Your task to perform on an android device: Open internet settings Image 0: 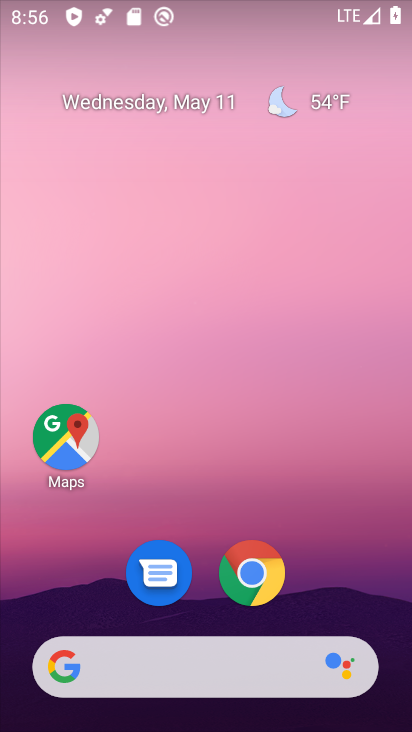
Step 0: drag from (211, 592) to (277, 10)
Your task to perform on an android device: Open internet settings Image 1: 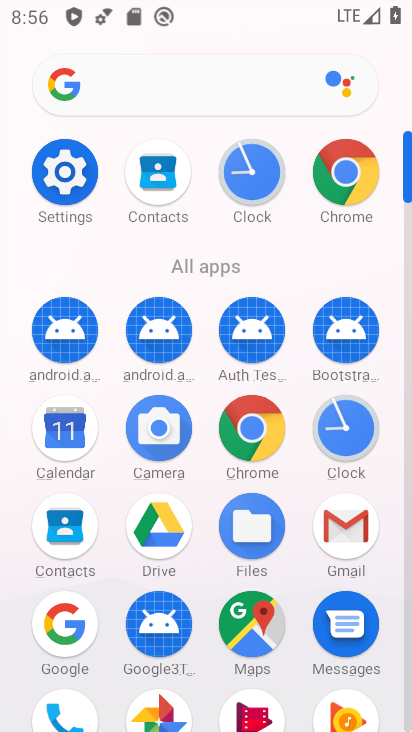
Step 1: click (33, 183)
Your task to perform on an android device: Open internet settings Image 2: 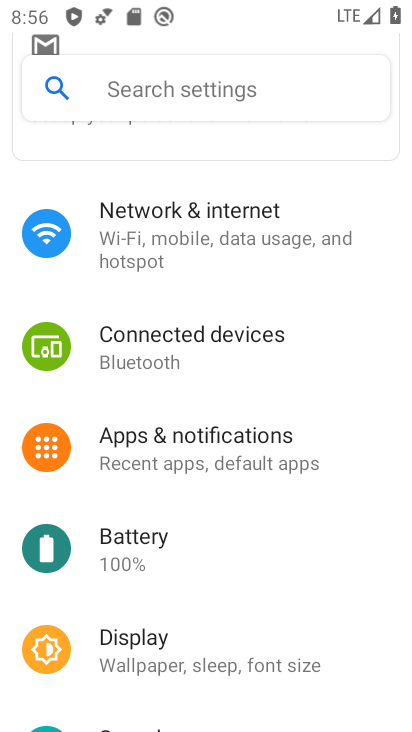
Step 2: click (266, 251)
Your task to perform on an android device: Open internet settings Image 3: 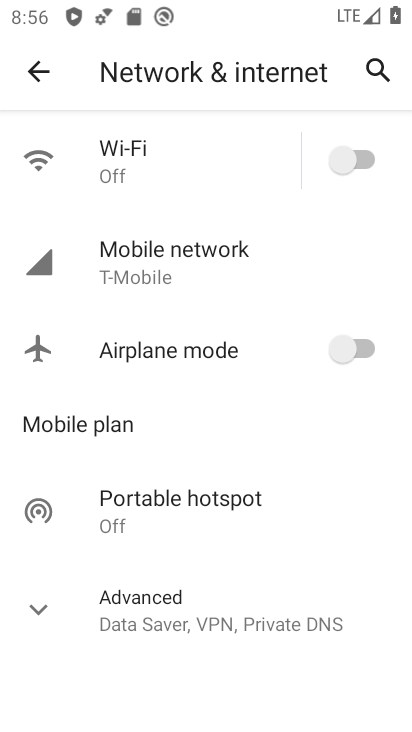
Step 3: task complete